Your task to perform on an android device: toggle javascript in the chrome app Image 0: 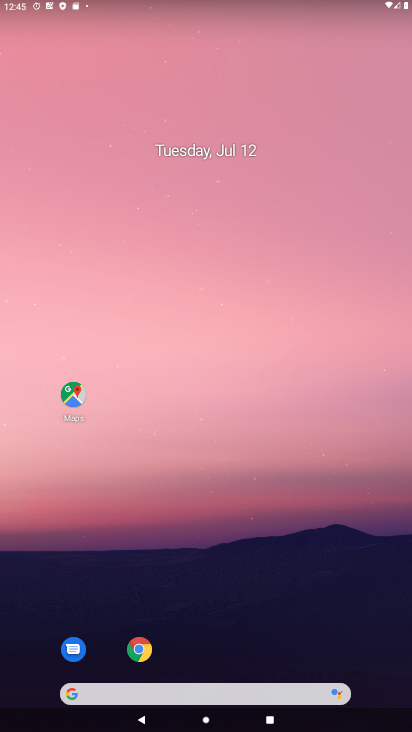
Step 0: drag from (360, 620) to (238, 141)
Your task to perform on an android device: toggle javascript in the chrome app Image 1: 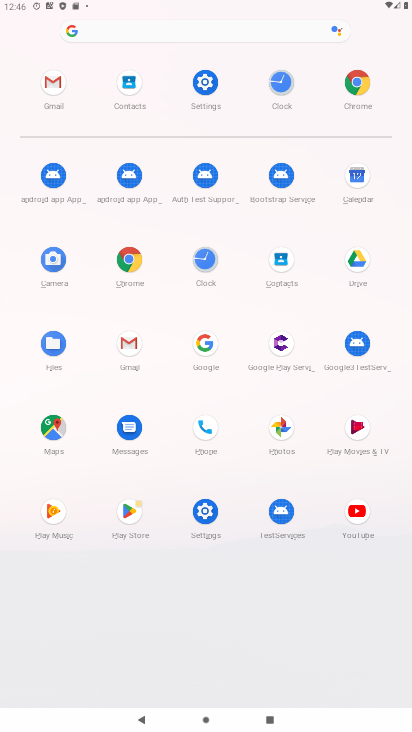
Step 1: click (126, 260)
Your task to perform on an android device: toggle javascript in the chrome app Image 2: 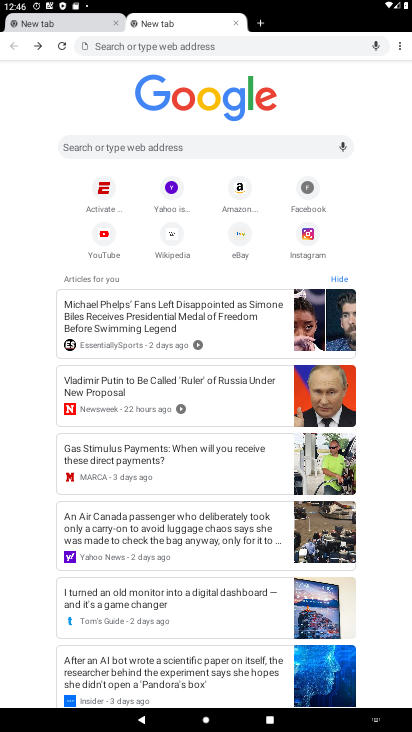
Step 2: click (402, 41)
Your task to perform on an android device: toggle javascript in the chrome app Image 3: 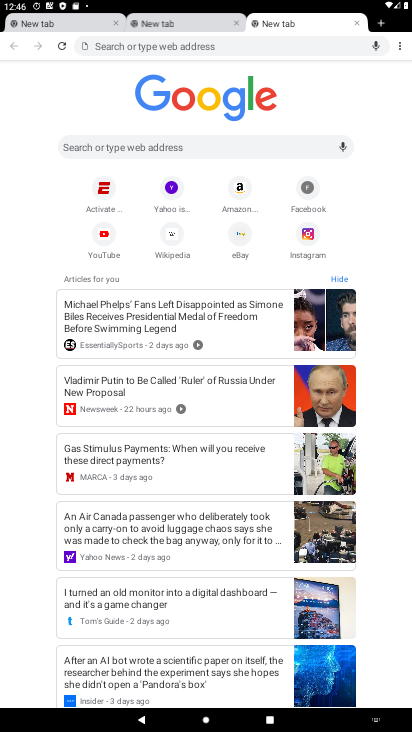
Step 3: click (398, 44)
Your task to perform on an android device: toggle javascript in the chrome app Image 4: 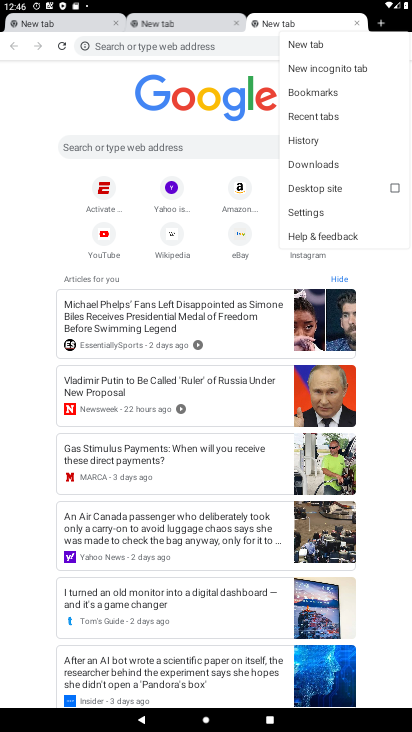
Step 4: click (322, 216)
Your task to perform on an android device: toggle javascript in the chrome app Image 5: 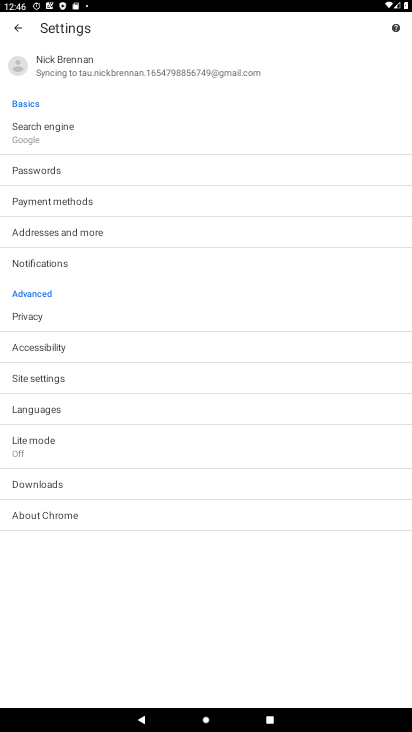
Step 5: click (66, 382)
Your task to perform on an android device: toggle javascript in the chrome app Image 6: 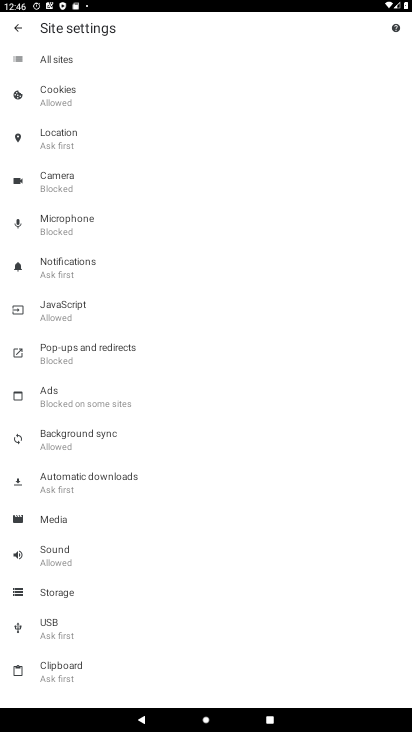
Step 6: click (82, 316)
Your task to perform on an android device: toggle javascript in the chrome app Image 7: 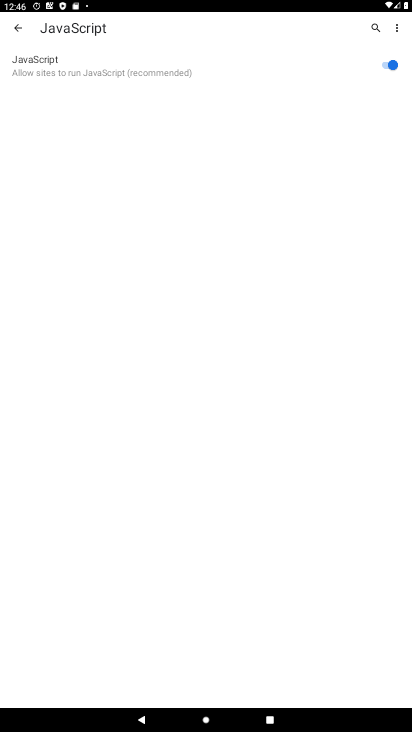
Step 7: click (387, 69)
Your task to perform on an android device: toggle javascript in the chrome app Image 8: 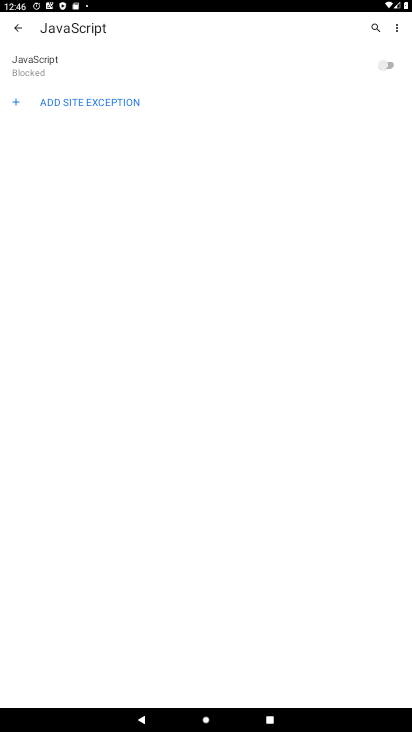
Step 8: task complete